Your task to perform on an android device: uninstall "Fetch Rewards" Image 0: 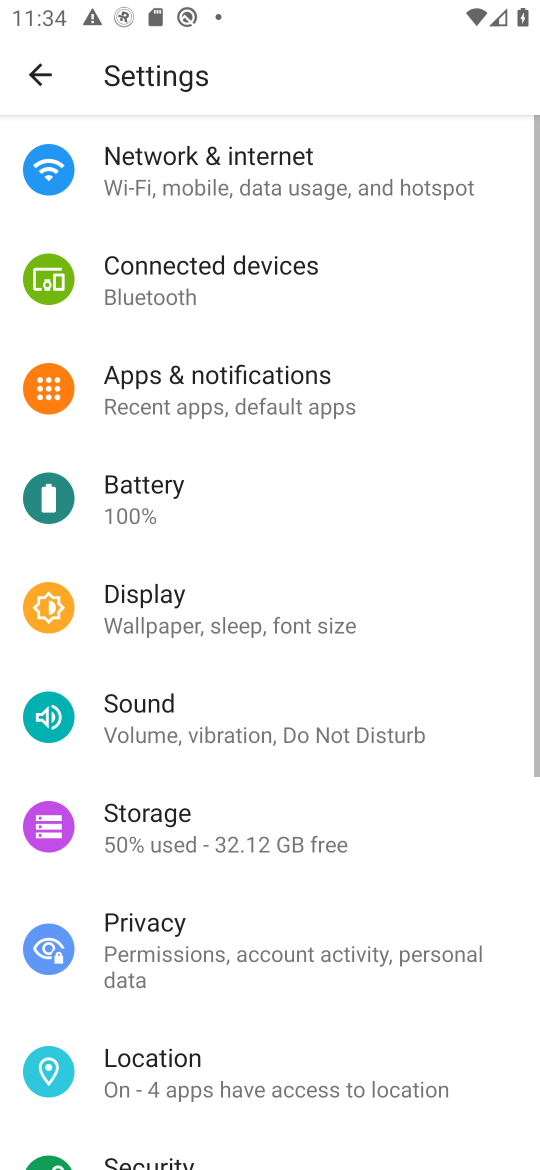
Step 0: press home button
Your task to perform on an android device: uninstall "Fetch Rewards" Image 1: 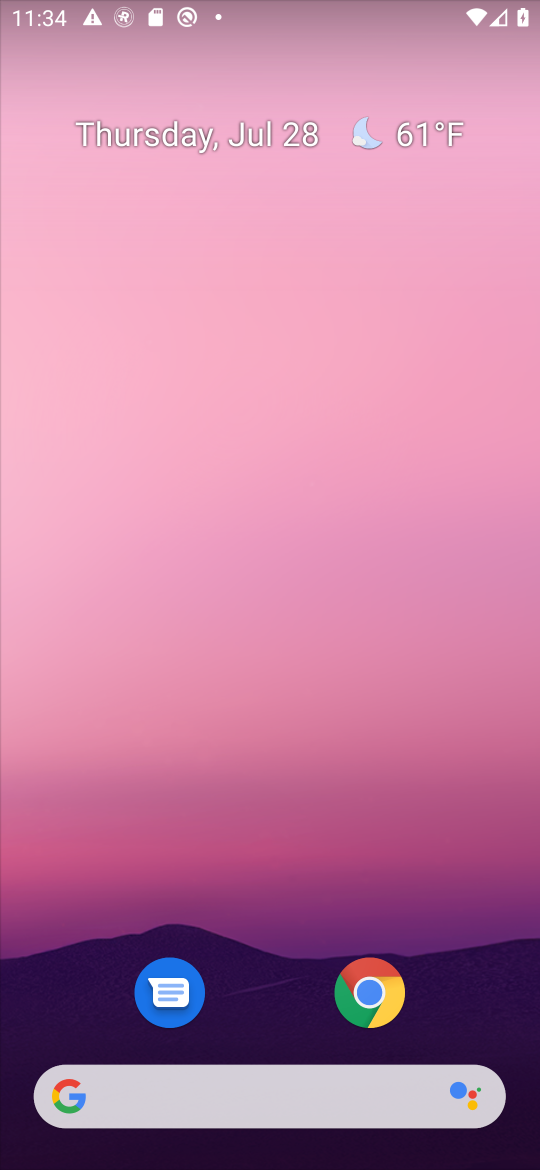
Step 1: drag from (227, 1081) to (323, 31)
Your task to perform on an android device: uninstall "Fetch Rewards" Image 2: 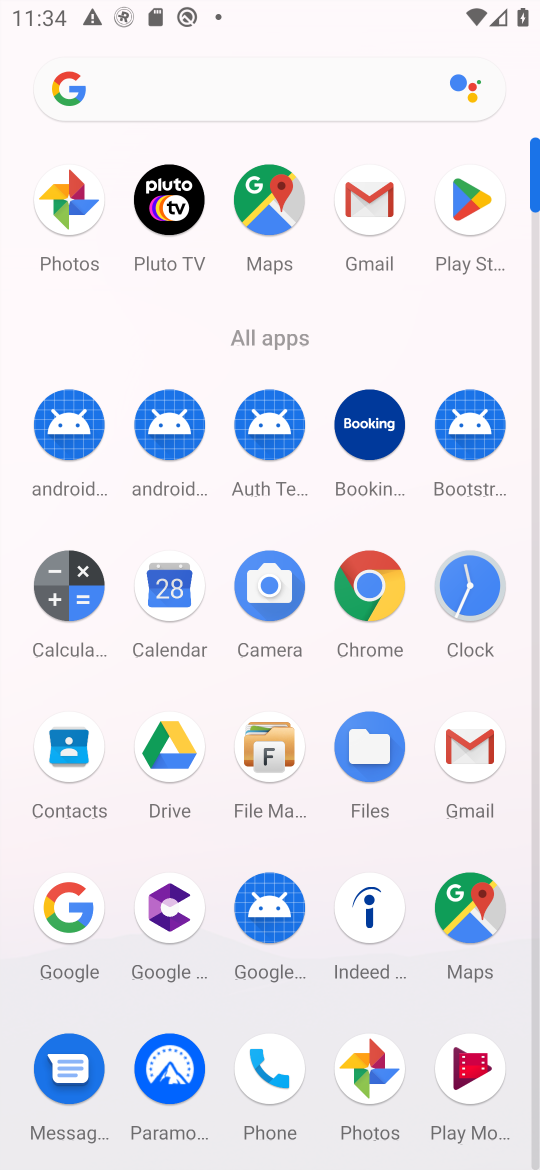
Step 2: click (474, 206)
Your task to perform on an android device: uninstall "Fetch Rewards" Image 3: 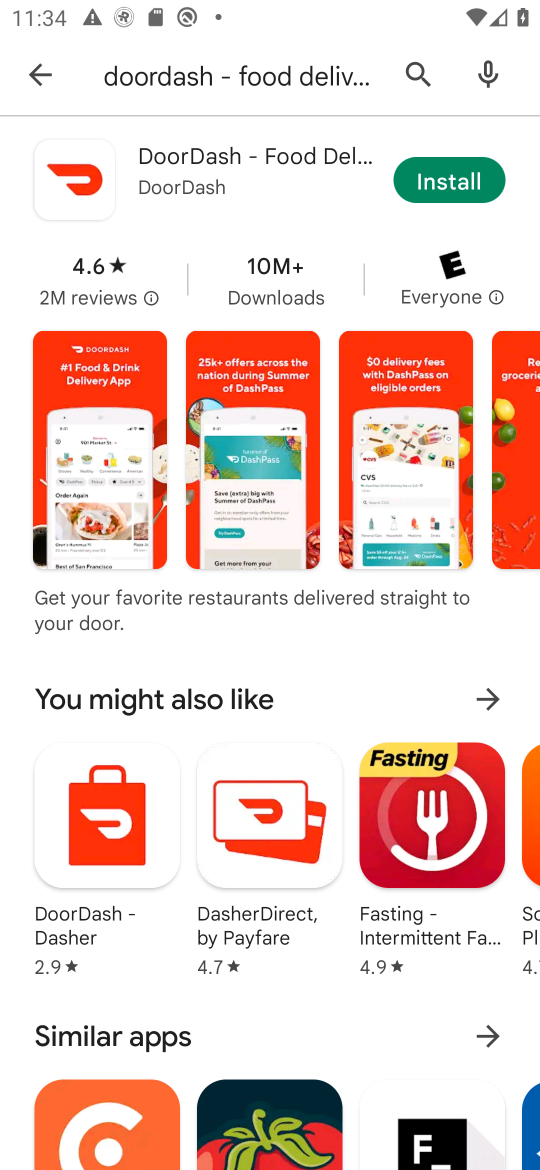
Step 3: click (417, 75)
Your task to perform on an android device: uninstall "Fetch Rewards" Image 4: 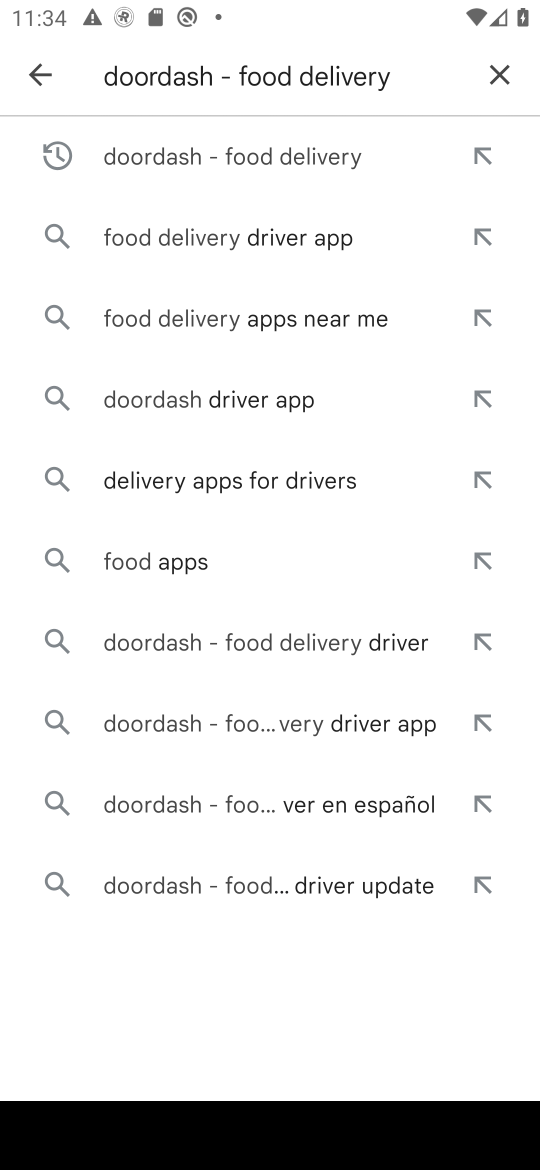
Step 4: click (504, 81)
Your task to perform on an android device: uninstall "Fetch Rewards" Image 5: 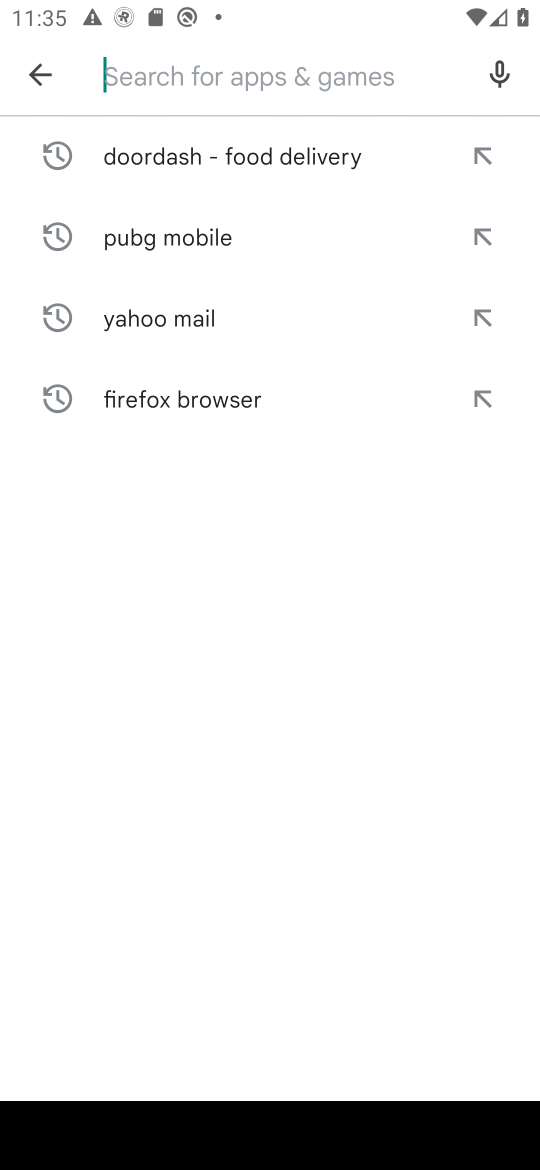
Step 5: type "Fetch Rewards"
Your task to perform on an android device: uninstall "Fetch Rewards" Image 6: 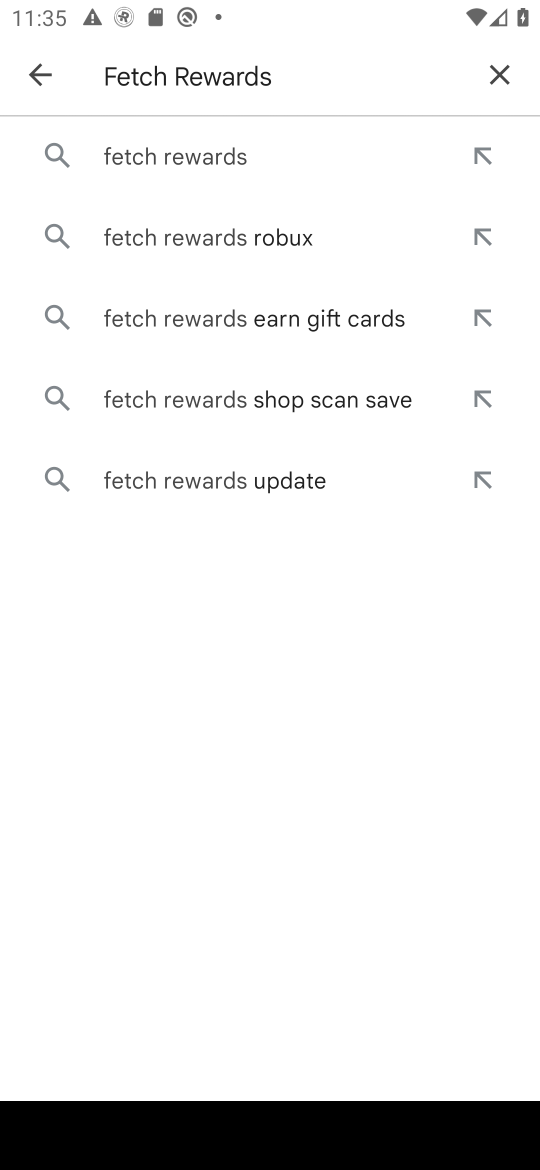
Step 6: click (195, 163)
Your task to perform on an android device: uninstall "Fetch Rewards" Image 7: 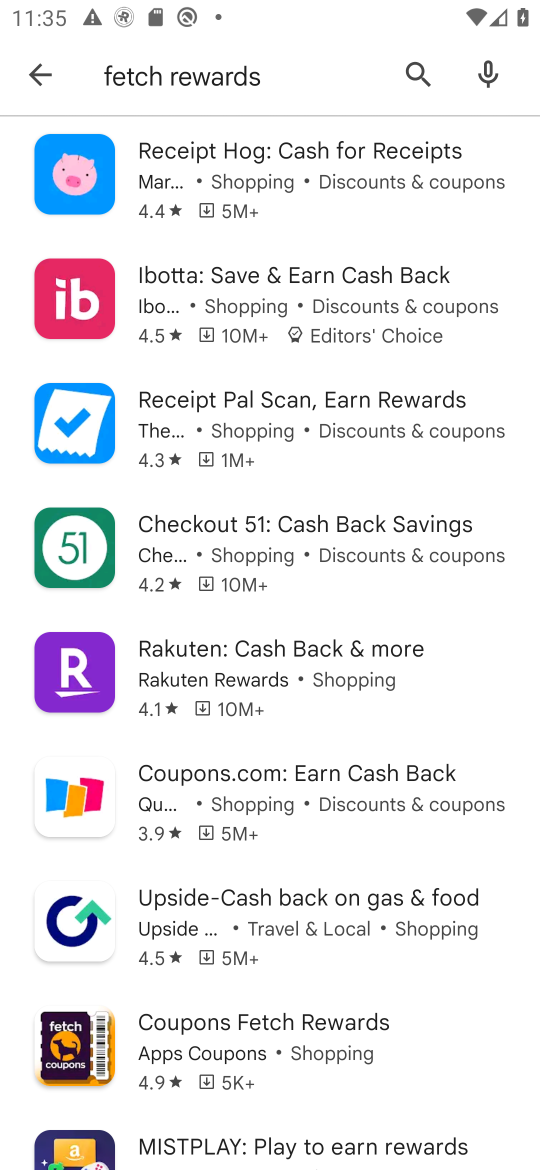
Step 7: task complete